Your task to perform on an android device: Go to Wikipedia Image 0: 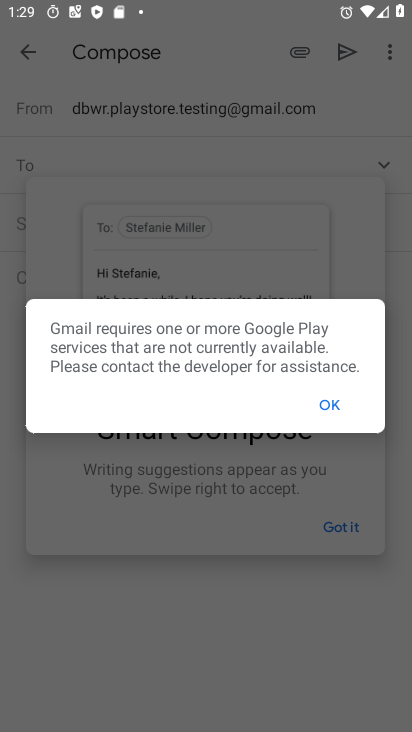
Step 0: press home button
Your task to perform on an android device: Go to Wikipedia Image 1: 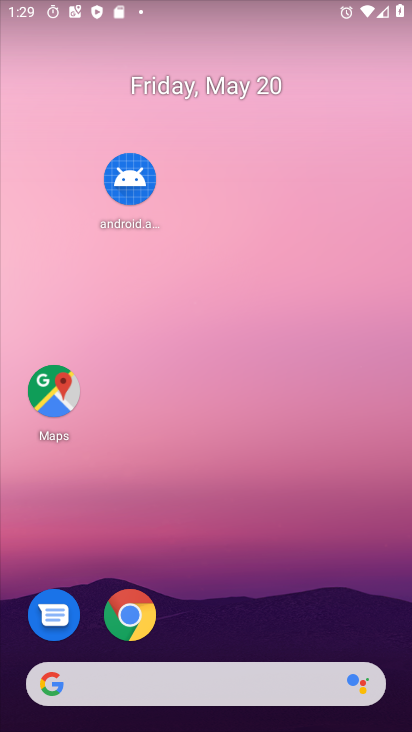
Step 1: click (134, 629)
Your task to perform on an android device: Go to Wikipedia Image 2: 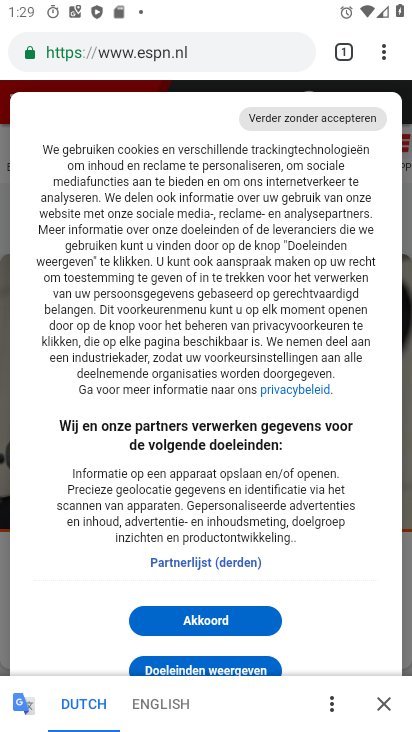
Step 2: click (340, 47)
Your task to perform on an android device: Go to Wikipedia Image 3: 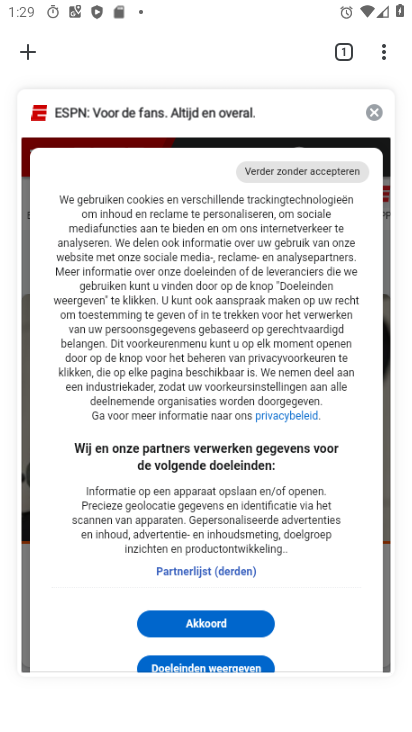
Step 3: click (371, 109)
Your task to perform on an android device: Go to Wikipedia Image 4: 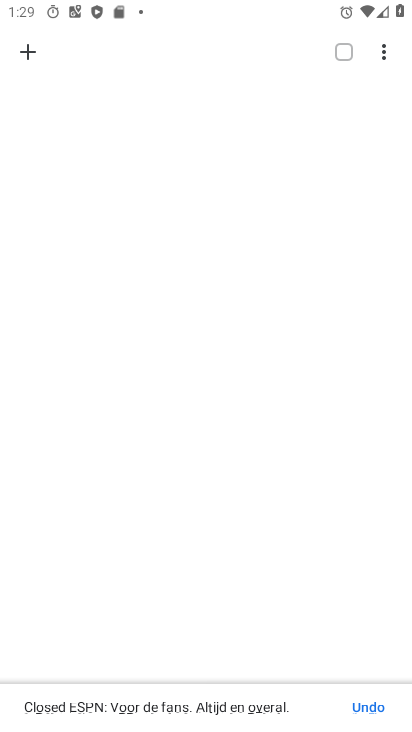
Step 4: click (25, 57)
Your task to perform on an android device: Go to Wikipedia Image 5: 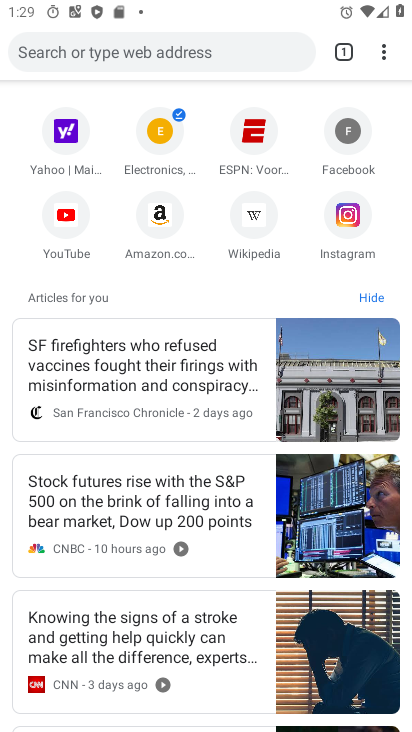
Step 5: click (266, 212)
Your task to perform on an android device: Go to Wikipedia Image 6: 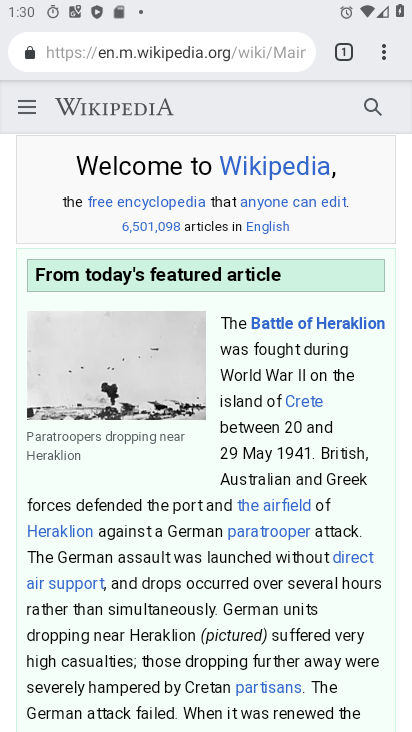
Step 6: task complete